Your task to perform on an android device: toggle location history Image 0: 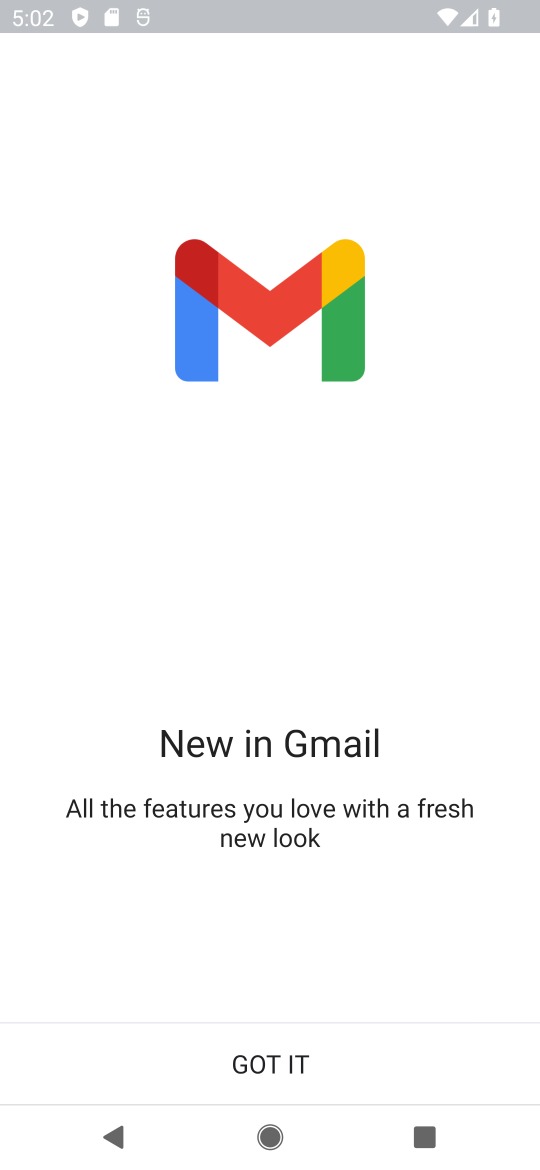
Step 0: press home button
Your task to perform on an android device: toggle location history Image 1: 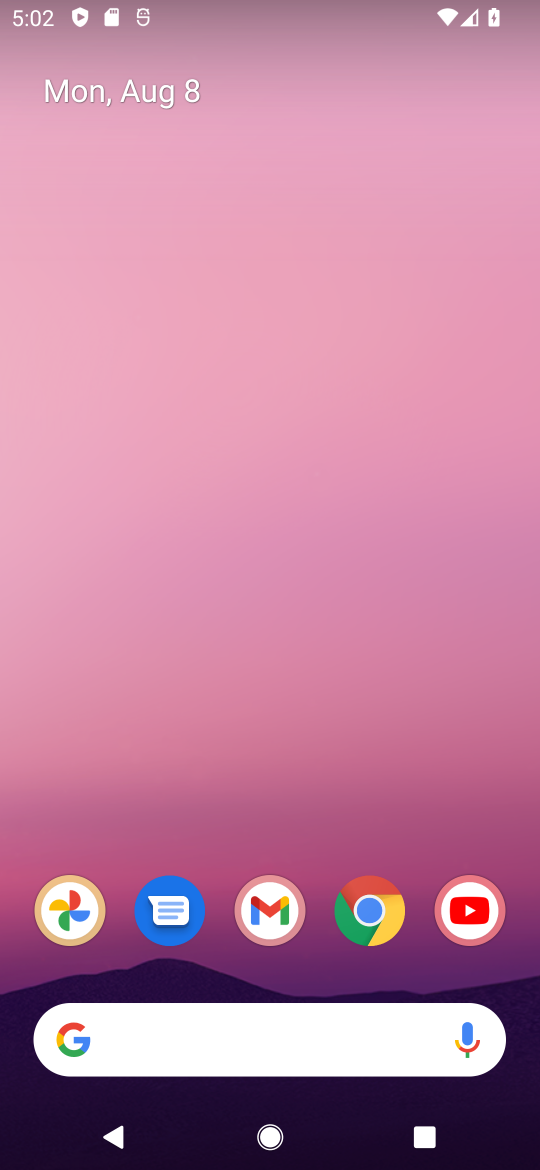
Step 1: drag from (217, 1047) to (249, 466)
Your task to perform on an android device: toggle location history Image 2: 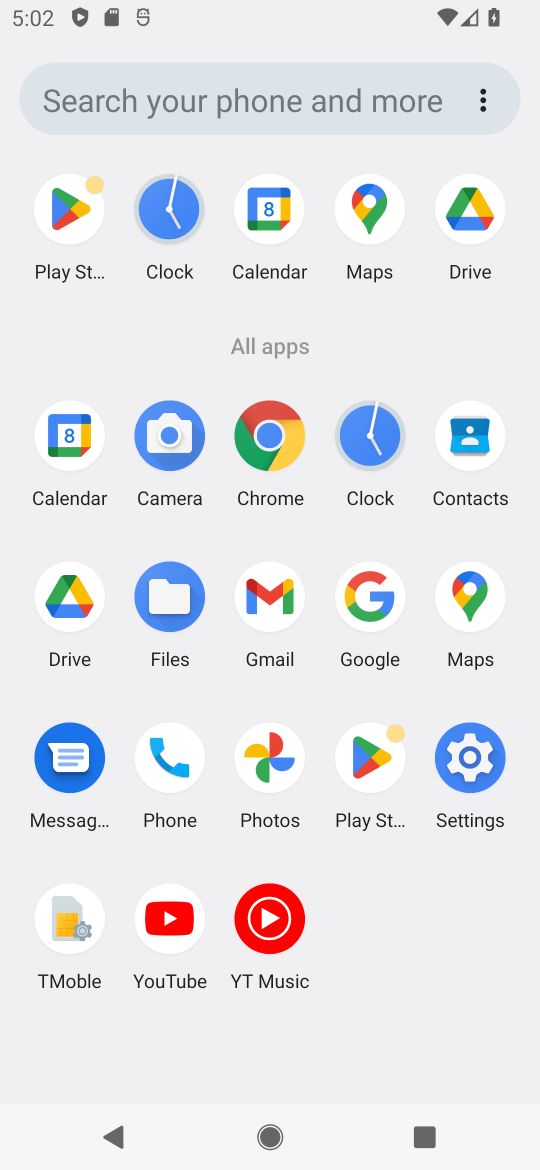
Step 2: click (466, 754)
Your task to perform on an android device: toggle location history Image 3: 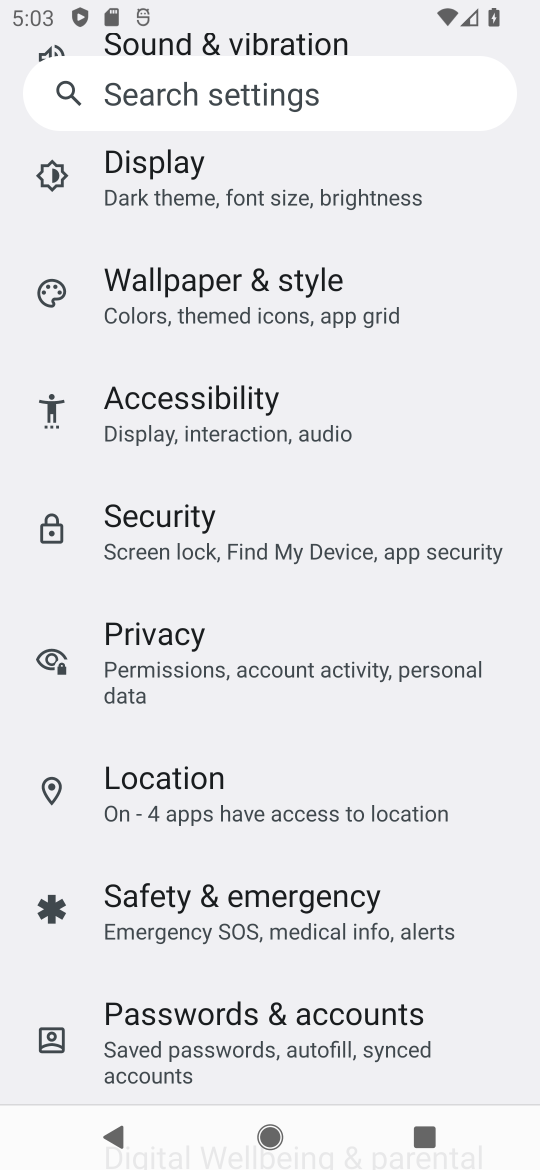
Step 3: click (324, 810)
Your task to perform on an android device: toggle location history Image 4: 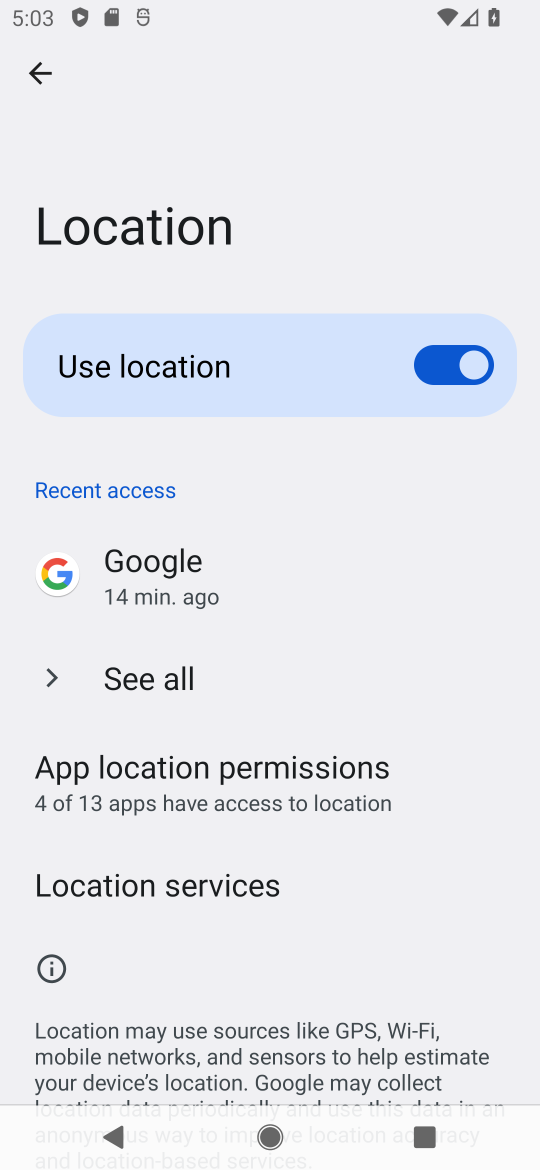
Step 4: click (124, 880)
Your task to perform on an android device: toggle location history Image 5: 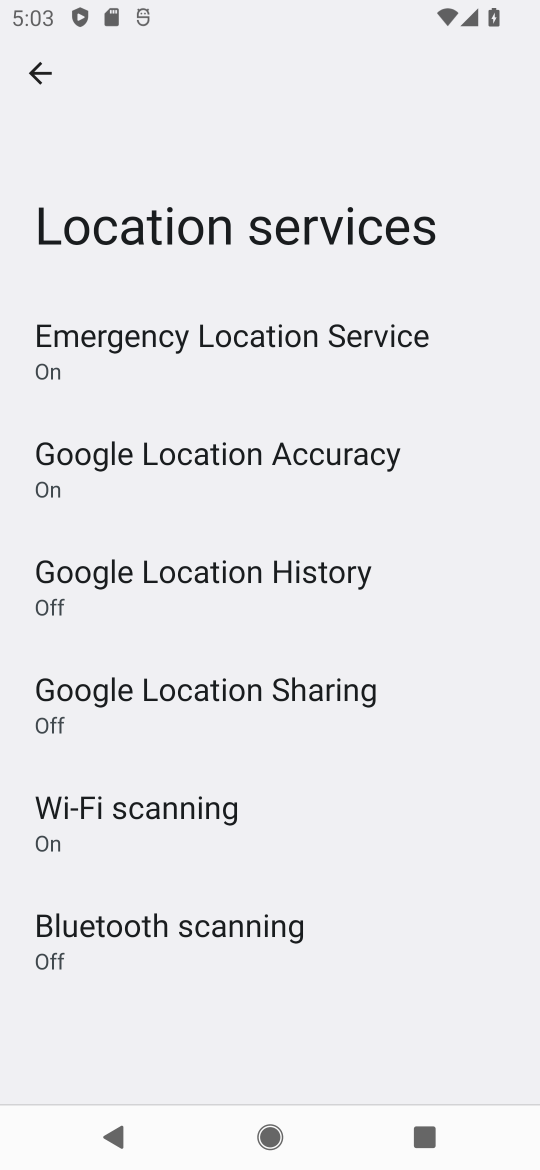
Step 5: click (215, 576)
Your task to perform on an android device: toggle location history Image 6: 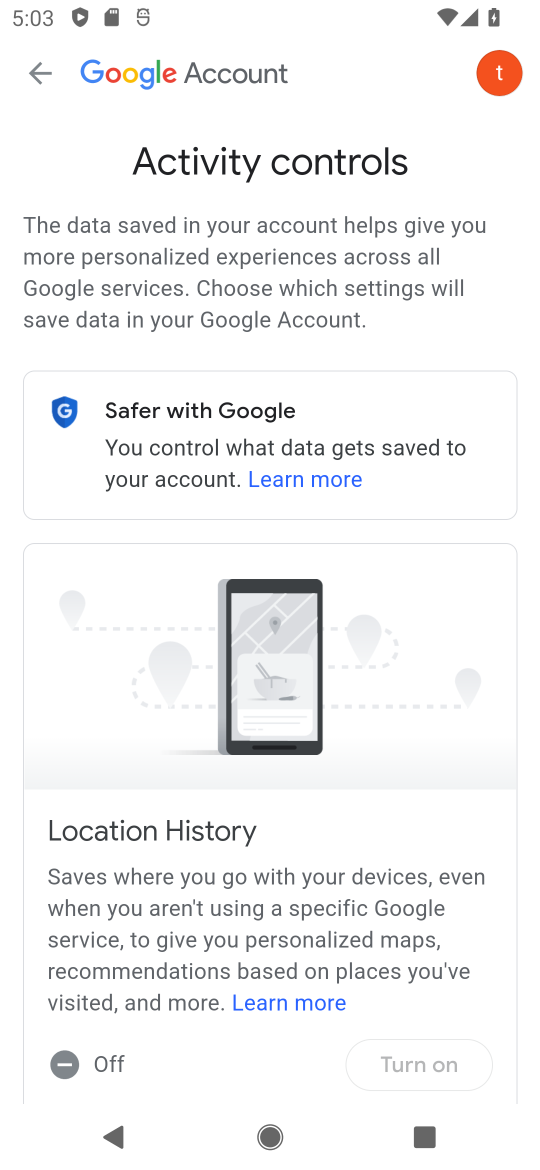
Step 6: drag from (375, 1003) to (383, 646)
Your task to perform on an android device: toggle location history Image 7: 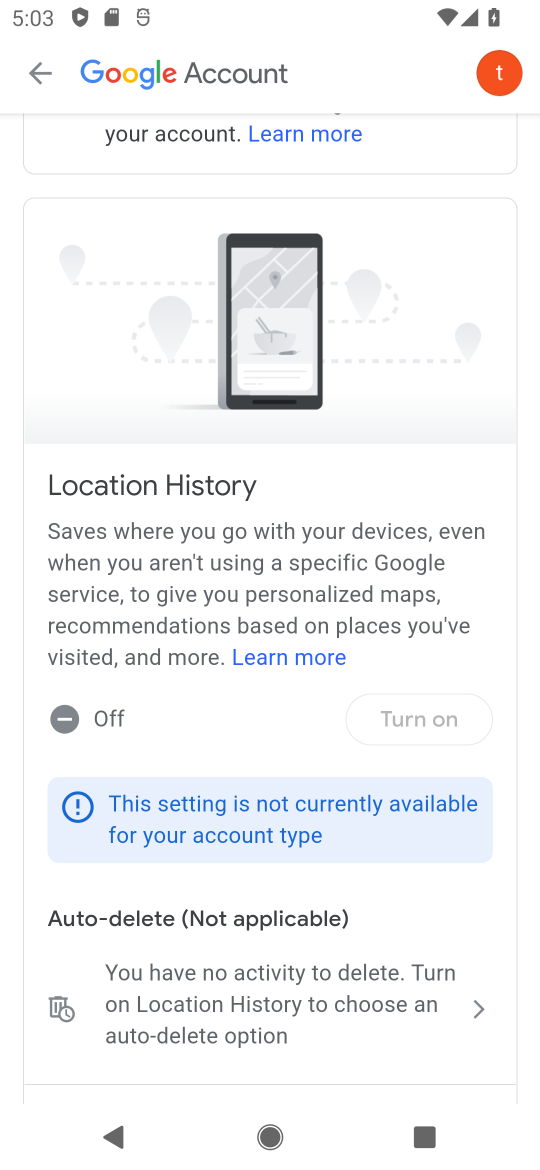
Step 7: drag from (288, 999) to (364, 734)
Your task to perform on an android device: toggle location history Image 8: 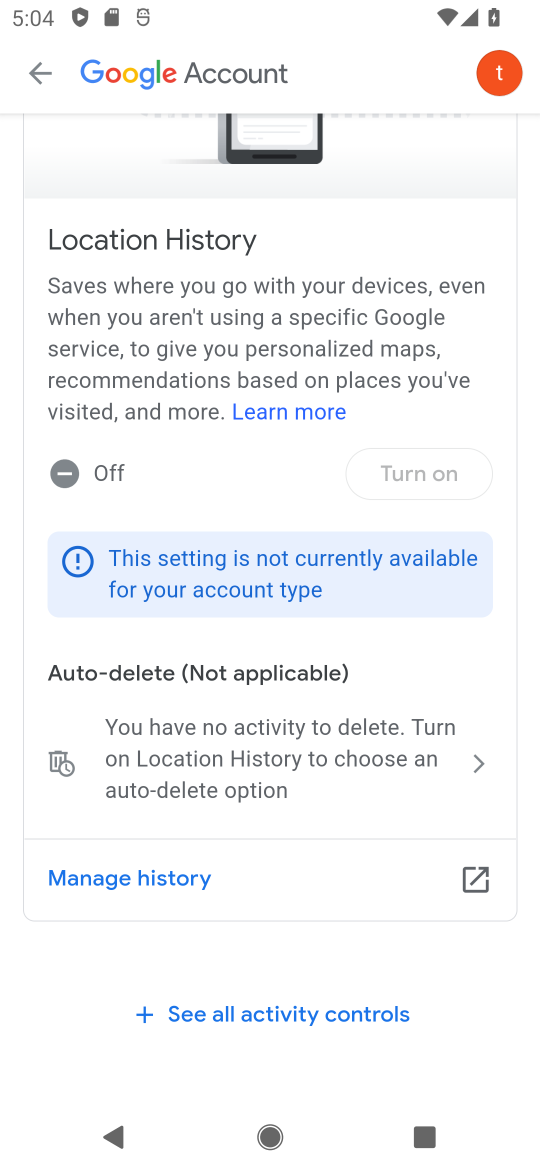
Step 8: click (255, 1016)
Your task to perform on an android device: toggle location history Image 9: 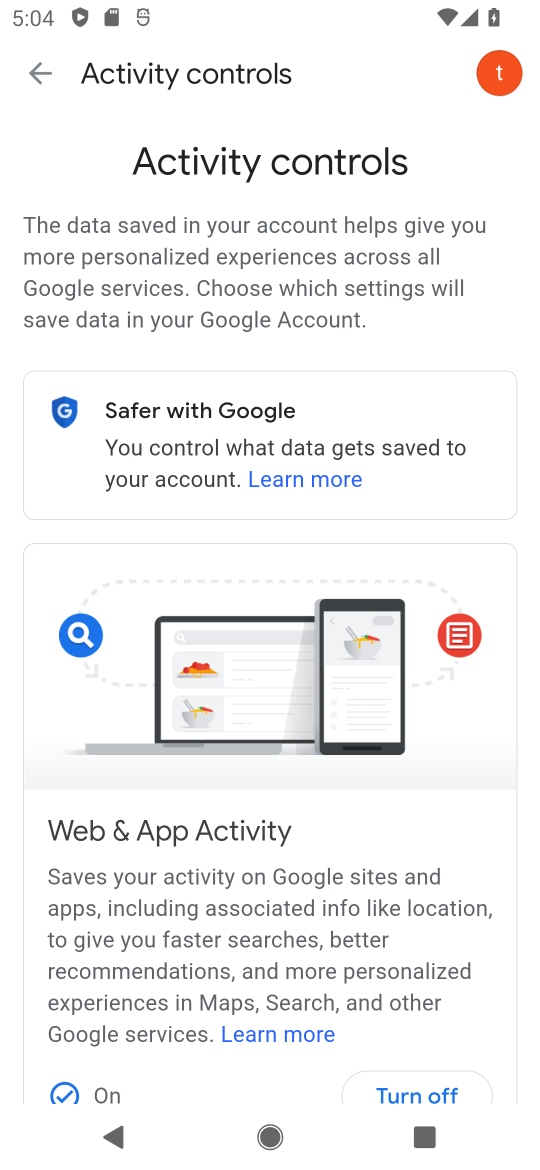
Step 9: task complete